Your task to perform on an android device: Open Android settings Image 0: 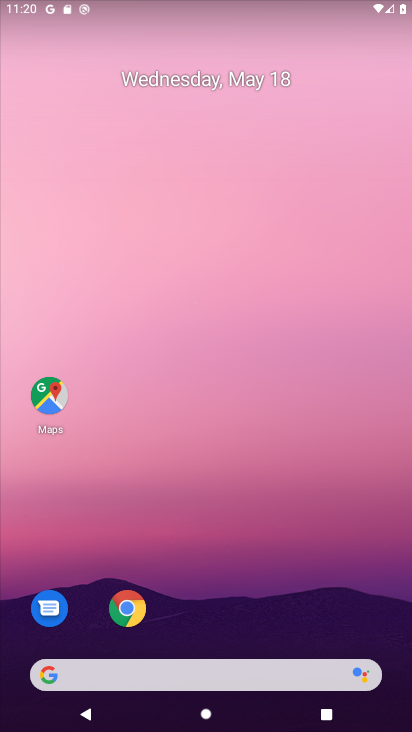
Step 0: drag from (267, 444) to (261, 77)
Your task to perform on an android device: Open Android settings Image 1: 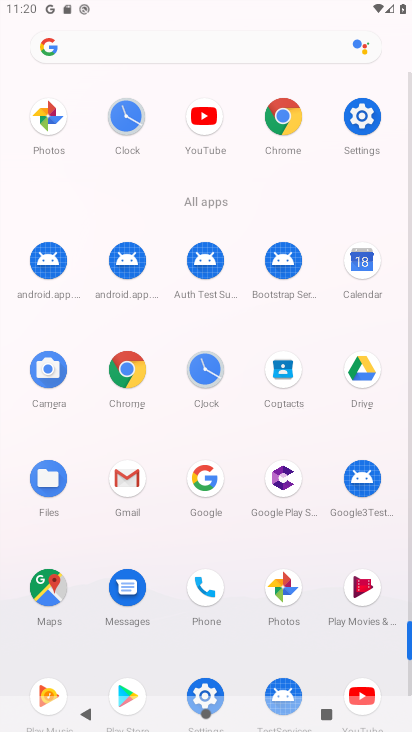
Step 1: click (364, 121)
Your task to perform on an android device: Open Android settings Image 2: 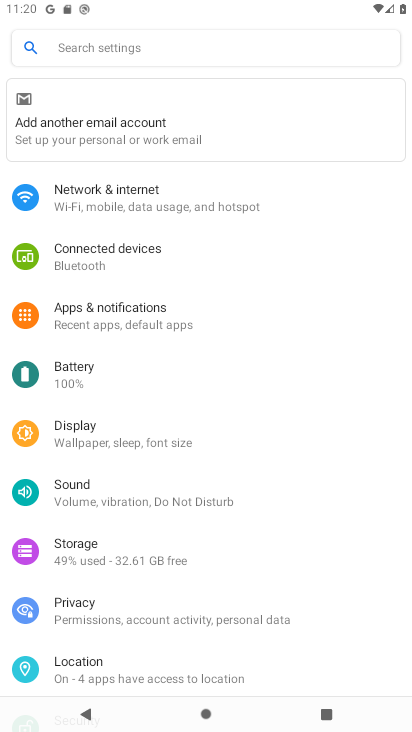
Step 2: drag from (134, 674) to (143, 205)
Your task to perform on an android device: Open Android settings Image 3: 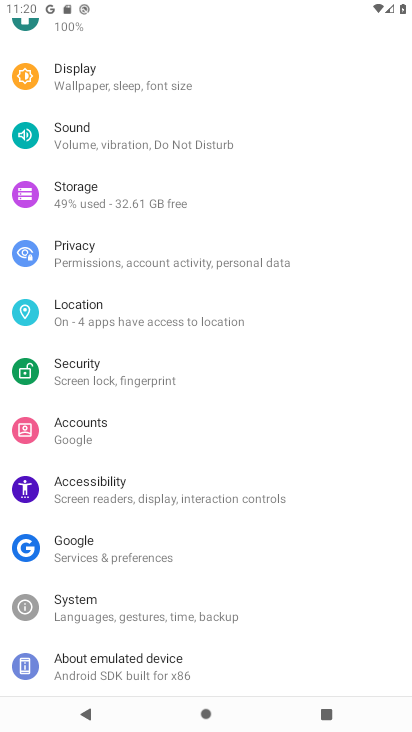
Step 3: click (89, 657)
Your task to perform on an android device: Open Android settings Image 4: 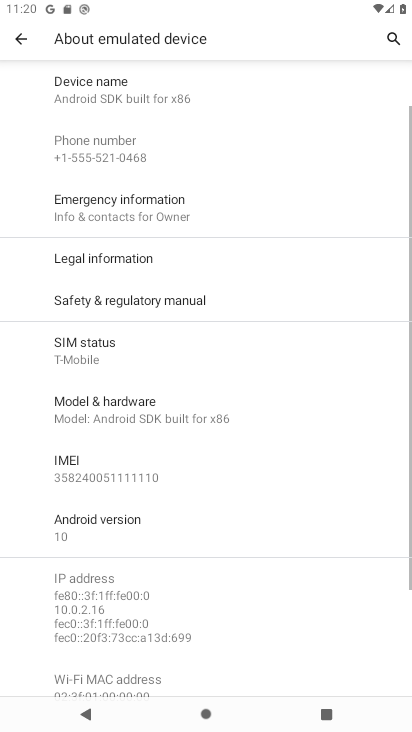
Step 4: click (92, 522)
Your task to perform on an android device: Open Android settings Image 5: 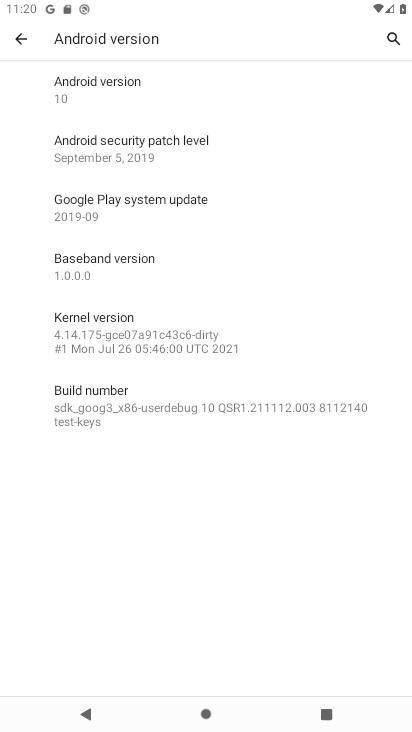
Step 5: task complete